Your task to perform on an android device: What's the weather? Image 0: 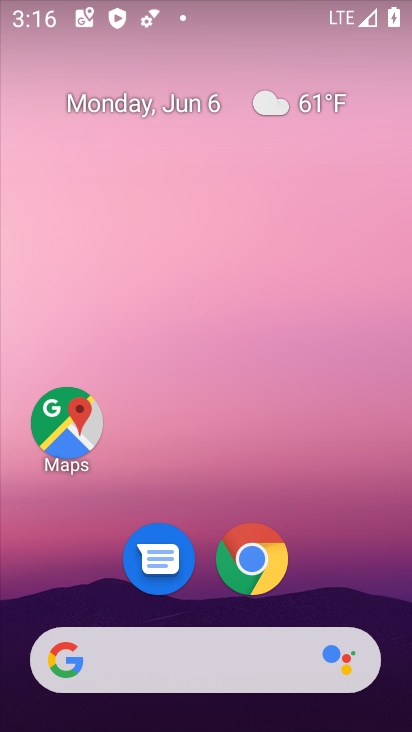
Step 0: click (153, 654)
Your task to perform on an android device: What's the weather? Image 1: 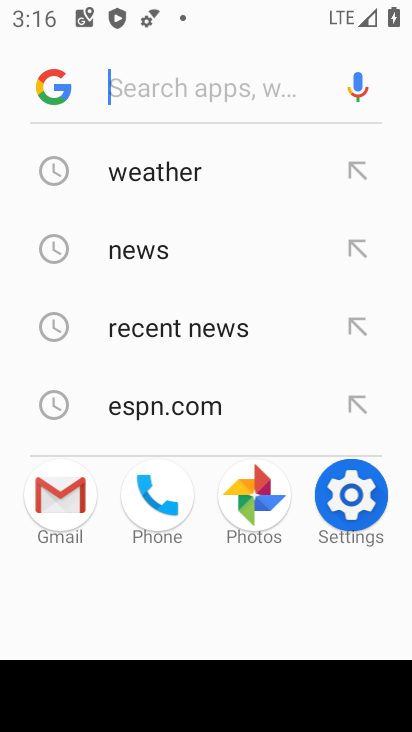
Step 1: click (227, 161)
Your task to perform on an android device: What's the weather? Image 2: 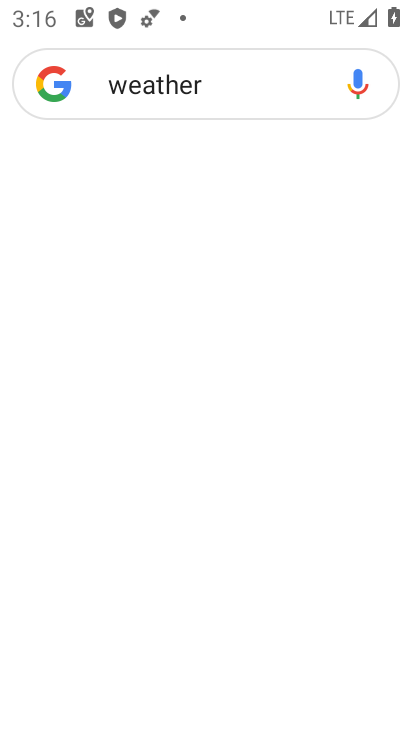
Step 2: task complete